Your task to perform on an android device: Open maps Image 0: 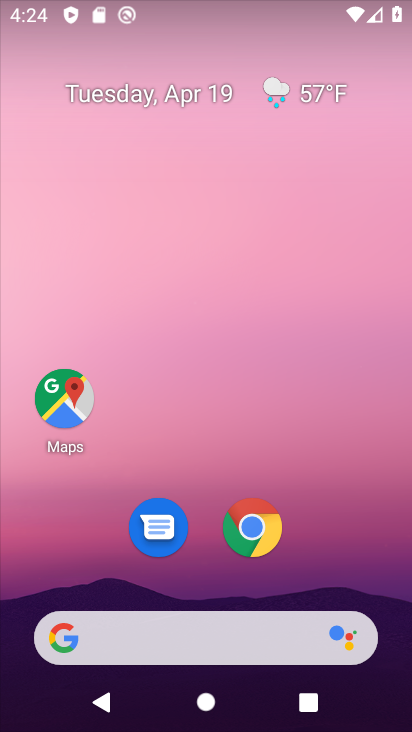
Step 0: drag from (391, 599) to (344, 252)
Your task to perform on an android device: Open maps Image 1: 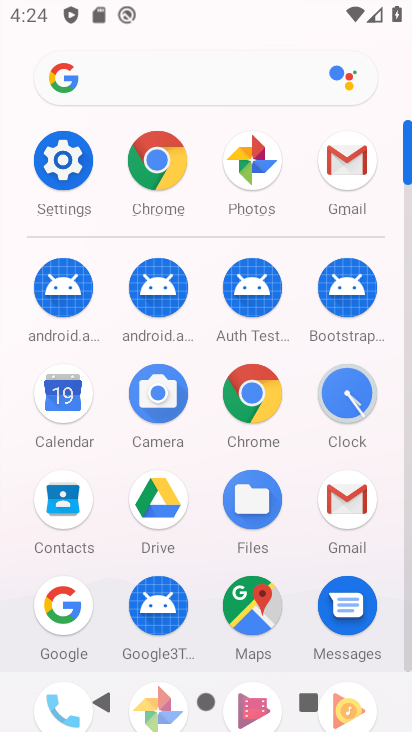
Step 1: click (407, 653)
Your task to perform on an android device: Open maps Image 2: 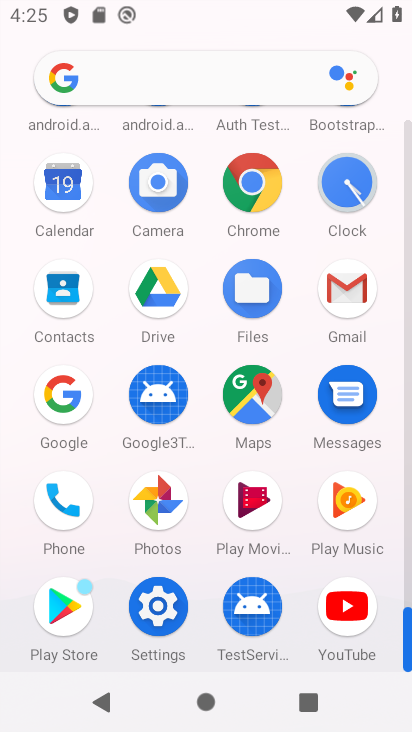
Step 2: click (249, 394)
Your task to perform on an android device: Open maps Image 3: 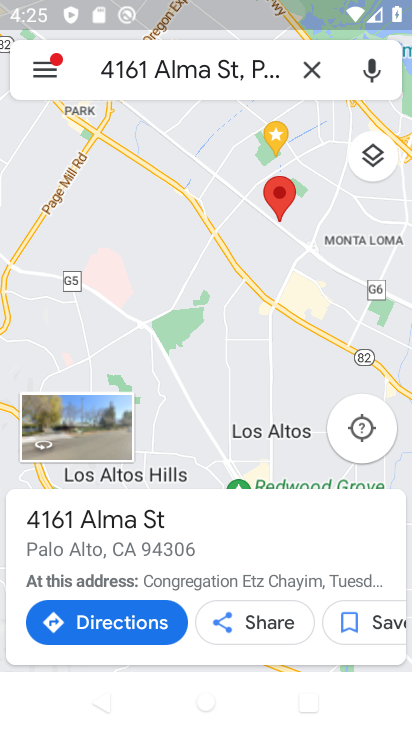
Step 3: task complete